Your task to perform on an android device: open app "Messenger Lite" (install if not already installed) and go to login screen Image 0: 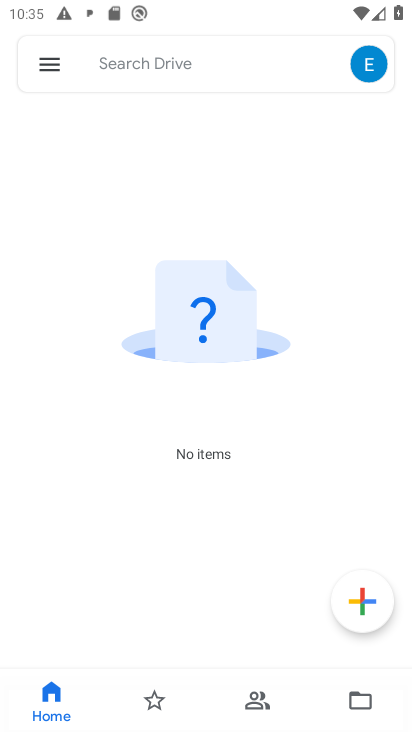
Step 0: press home button
Your task to perform on an android device: open app "Messenger Lite" (install if not already installed) and go to login screen Image 1: 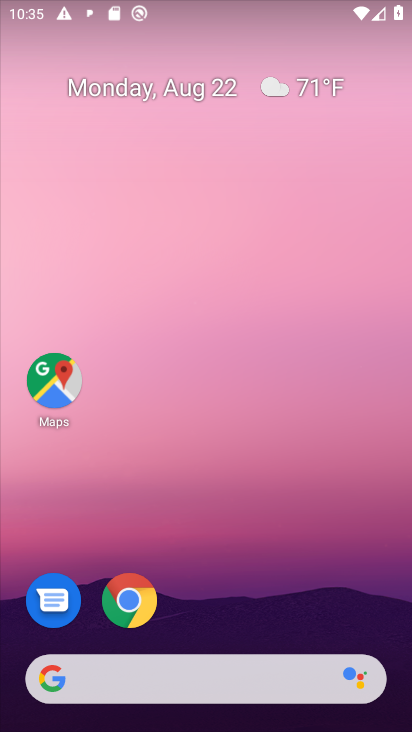
Step 1: drag from (234, 599) to (256, 115)
Your task to perform on an android device: open app "Messenger Lite" (install if not already installed) and go to login screen Image 2: 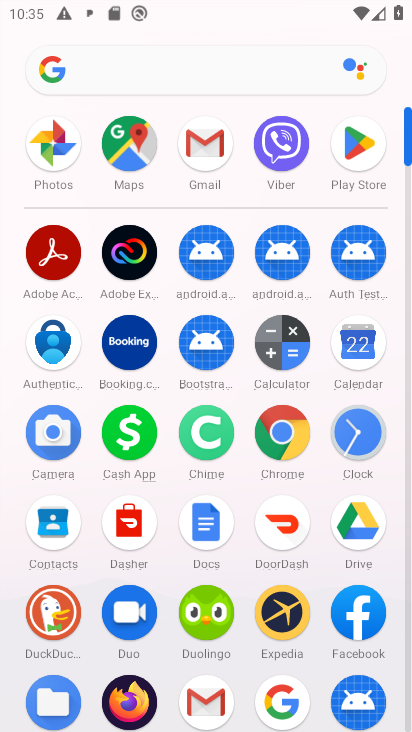
Step 2: click (340, 134)
Your task to perform on an android device: open app "Messenger Lite" (install if not already installed) and go to login screen Image 3: 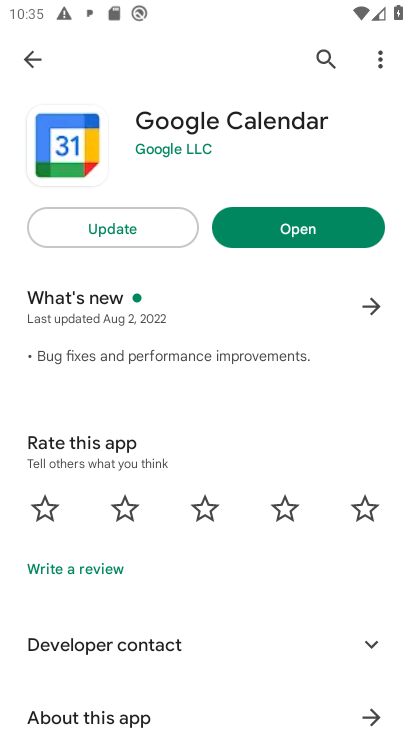
Step 3: click (329, 57)
Your task to perform on an android device: open app "Messenger Lite" (install if not already installed) and go to login screen Image 4: 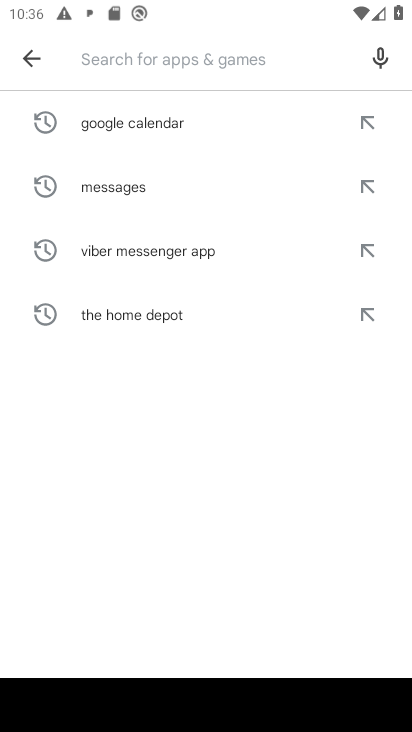
Step 4: type "Messenger Lite"
Your task to perform on an android device: open app "Messenger Lite" (install if not already installed) and go to login screen Image 5: 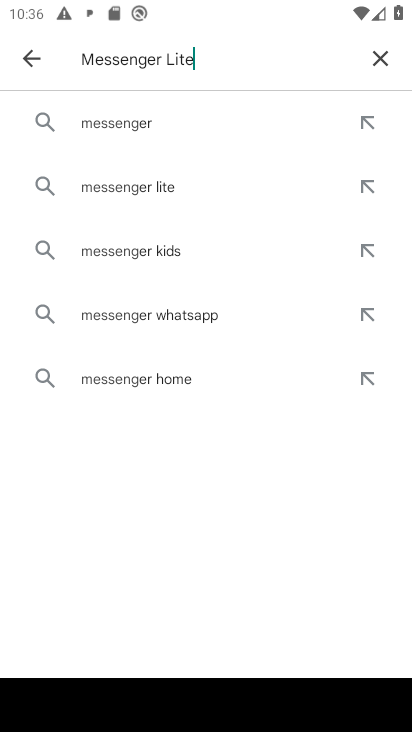
Step 5: type ""
Your task to perform on an android device: open app "Messenger Lite" (install if not already installed) and go to login screen Image 6: 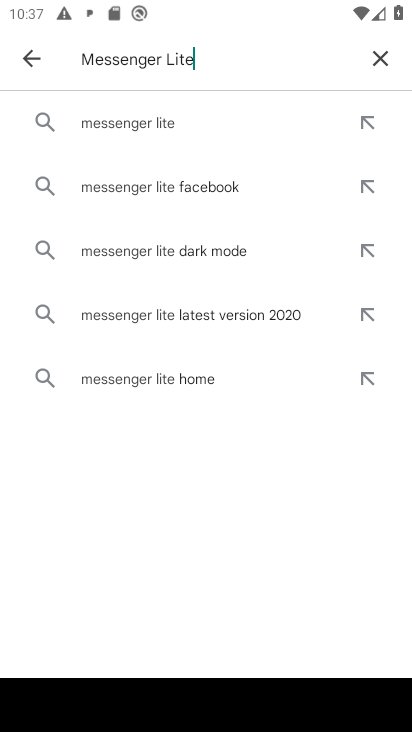
Step 6: click (168, 132)
Your task to perform on an android device: open app "Messenger Lite" (install if not already installed) and go to login screen Image 7: 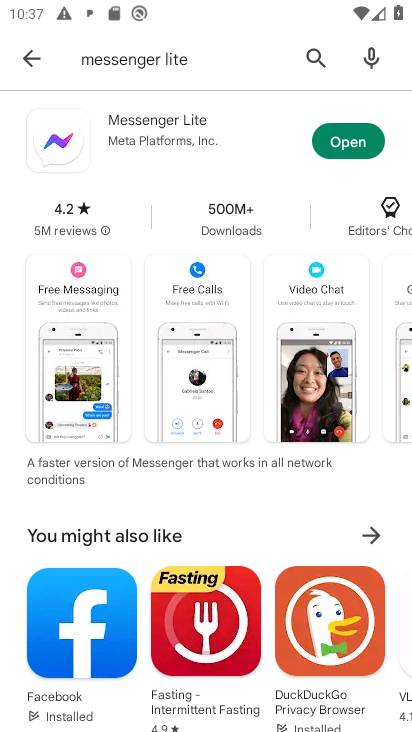
Step 7: click (338, 153)
Your task to perform on an android device: open app "Messenger Lite" (install if not already installed) and go to login screen Image 8: 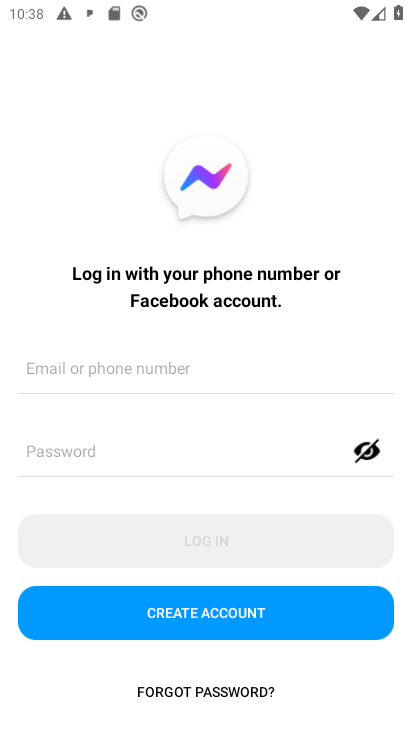
Step 8: task complete